Your task to perform on an android device: add a label to a message in the gmail app Image 0: 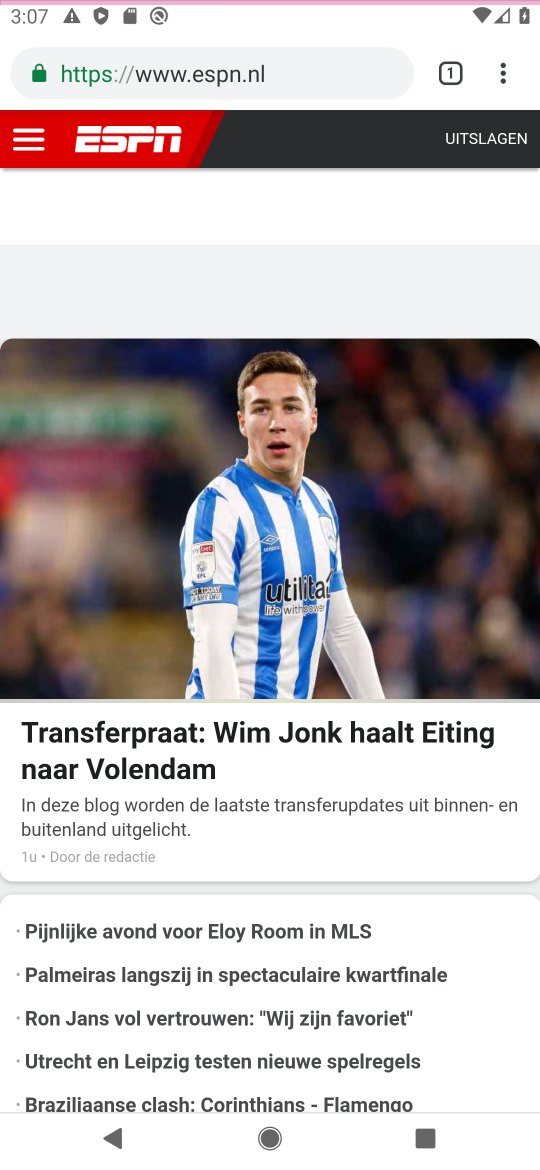
Step 0: press home button
Your task to perform on an android device: add a label to a message in the gmail app Image 1: 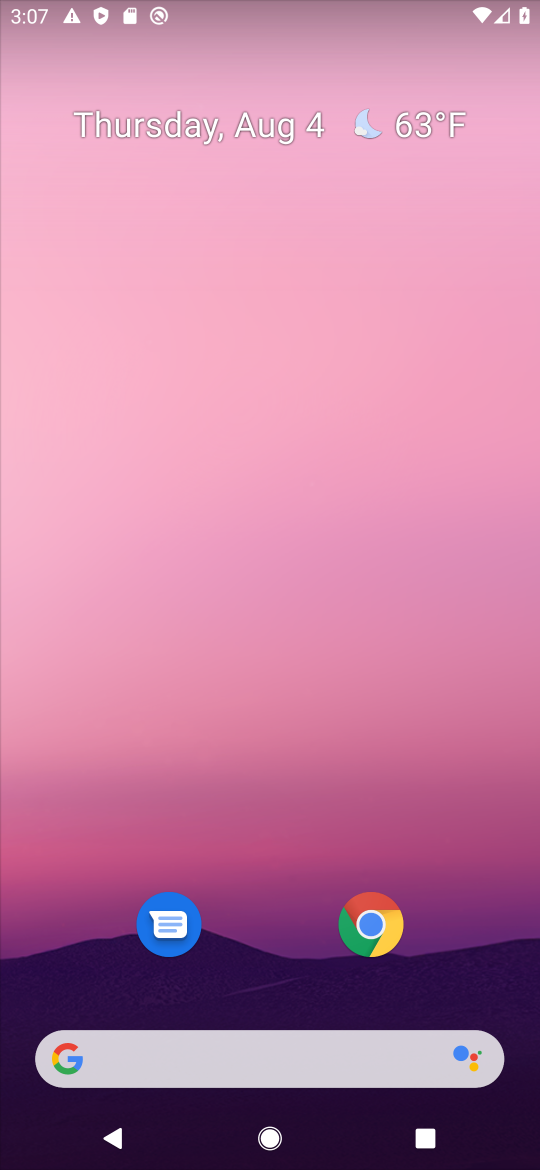
Step 1: drag from (247, 950) to (120, 289)
Your task to perform on an android device: add a label to a message in the gmail app Image 2: 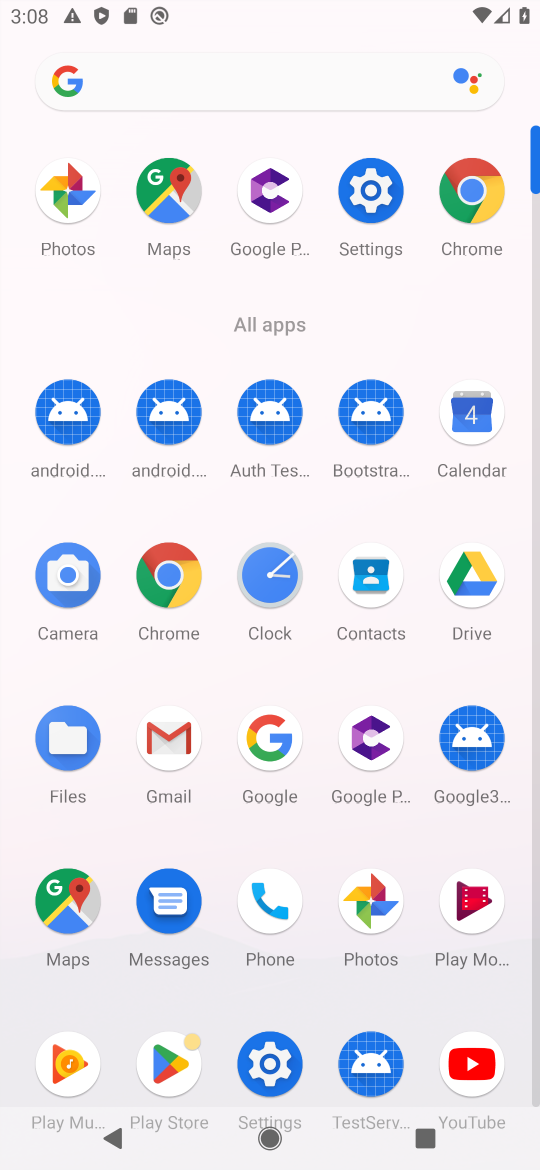
Step 2: click (153, 756)
Your task to perform on an android device: add a label to a message in the gmail app Image 3: 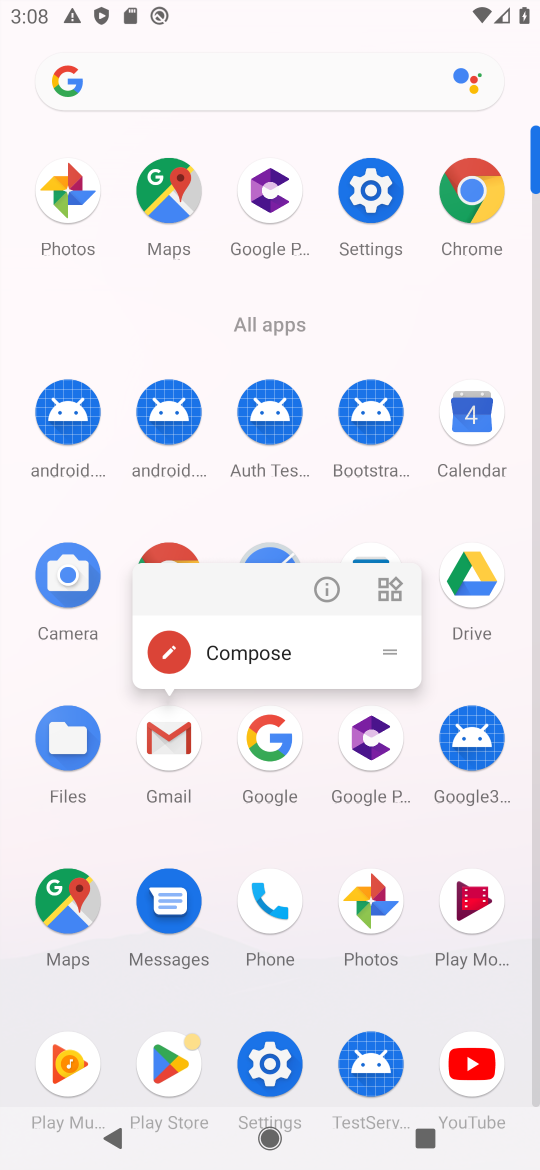
Step 3: click (166, 736)
Your task to perform on an android device: add a label to a message in the gmail app Image 4: 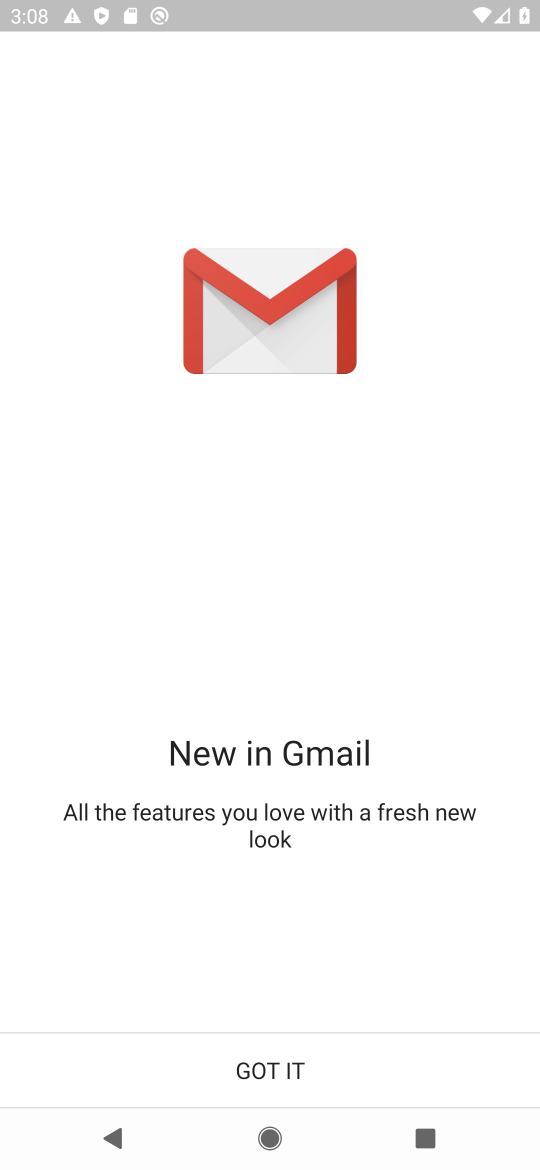
Step 4: click (270, 1063)
Your task to perform on an android device: add a label to a message in the gmail app Image 5: 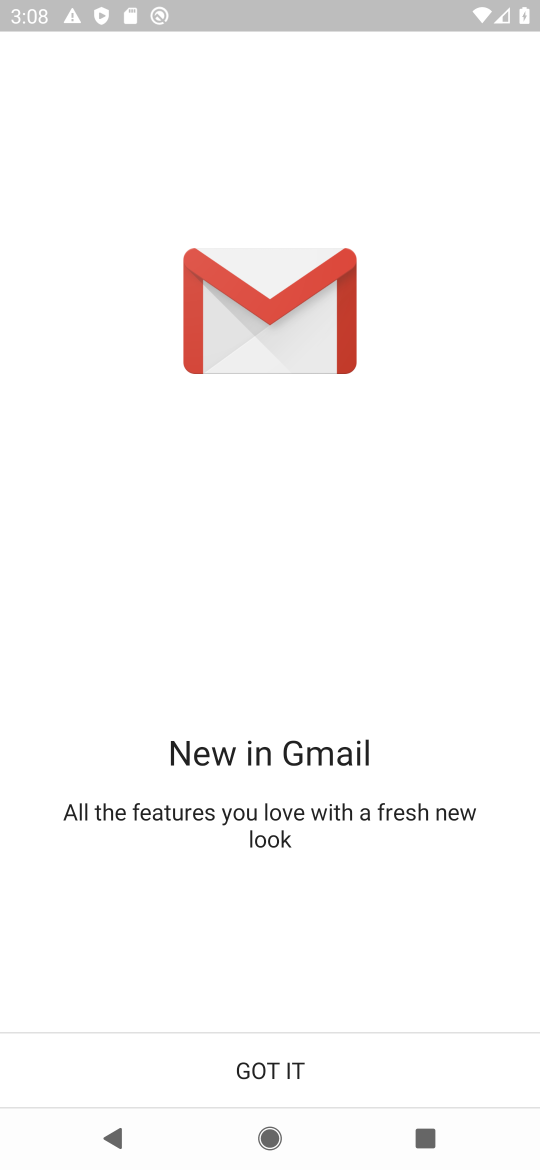
Step 5: click (270, 1063)
Your task to perform on an android device: add a label to a message in the gmail app Image 6: 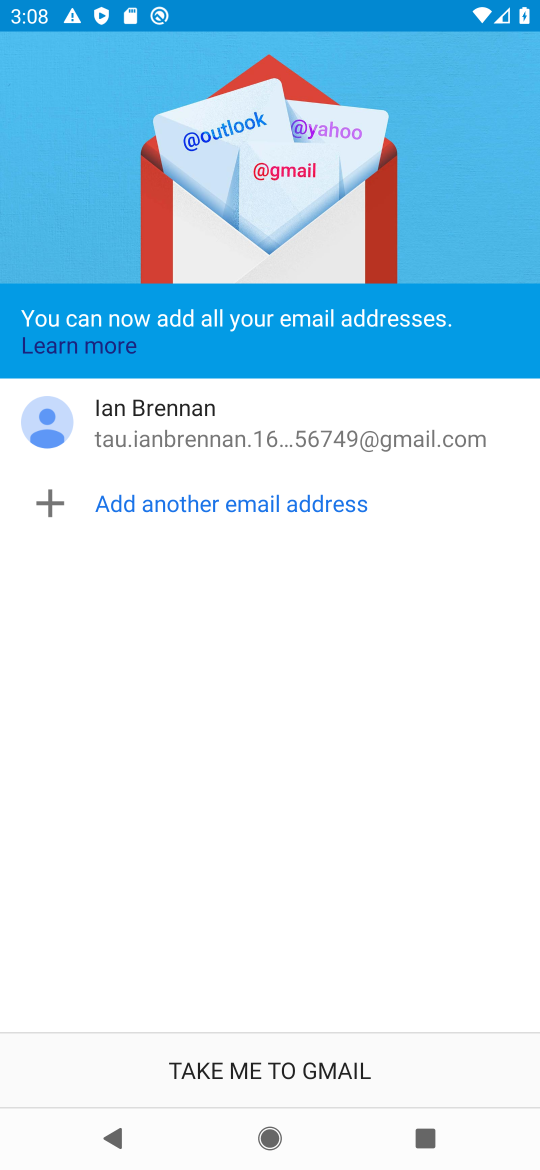
Step 6: click (270, 1063)
Your task to perform on an android device: add a label to a message in the gmail app Image 7: 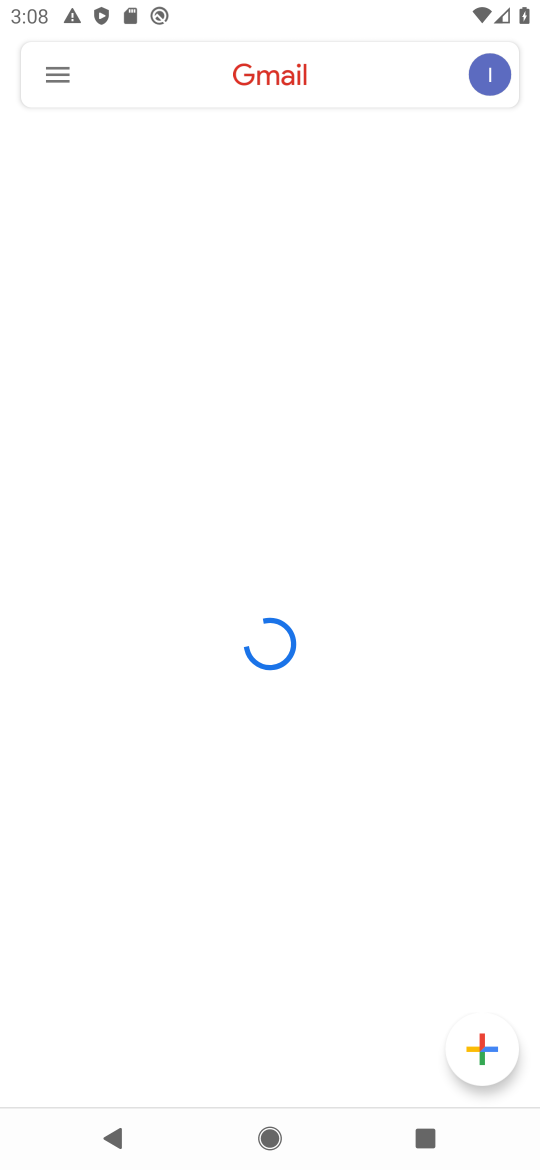
Step 7: click (59, 56)
Your task to perform on an android device: add a label to a message in the gmail app Image 8: 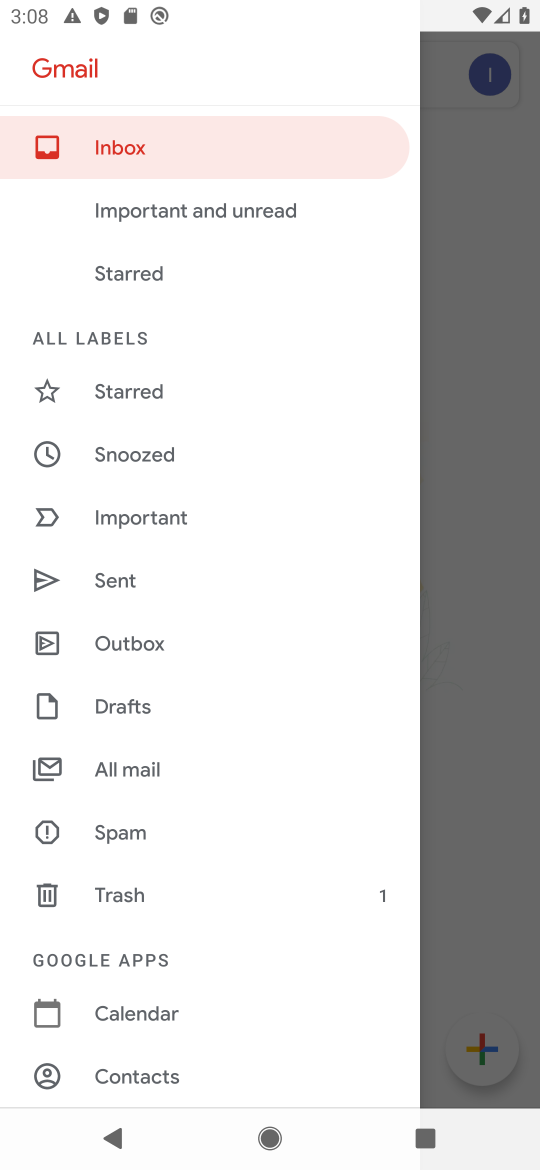
Step 8: click (105, 755)
Your task to perform on an android device: add a label to a message in the gmail app Image 9: 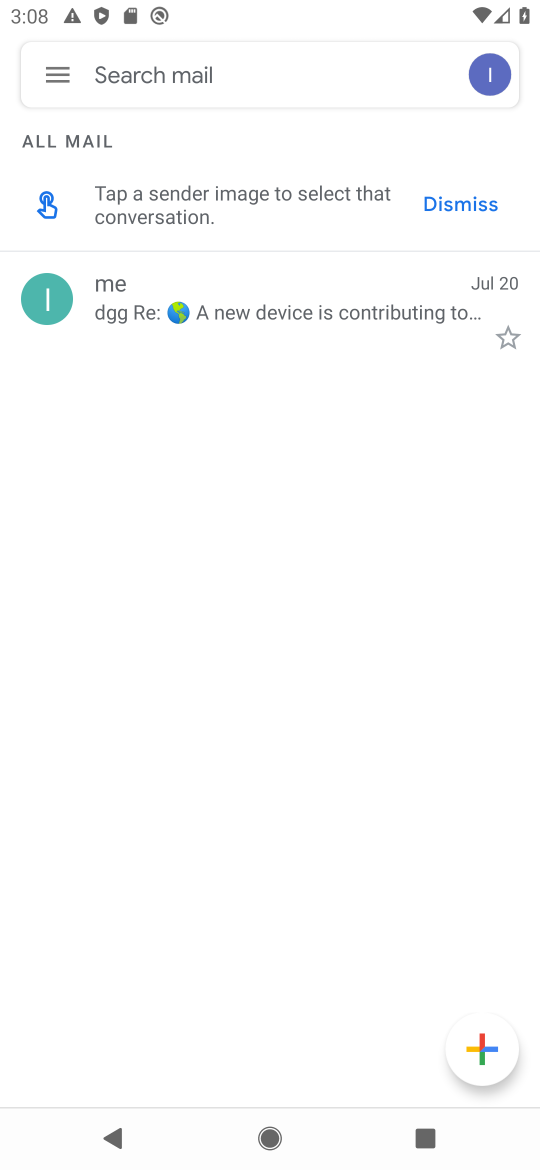
Step 9: click (296, 298)
Your task to perform on an android device: add a label to a message in the gmail app Image 10: 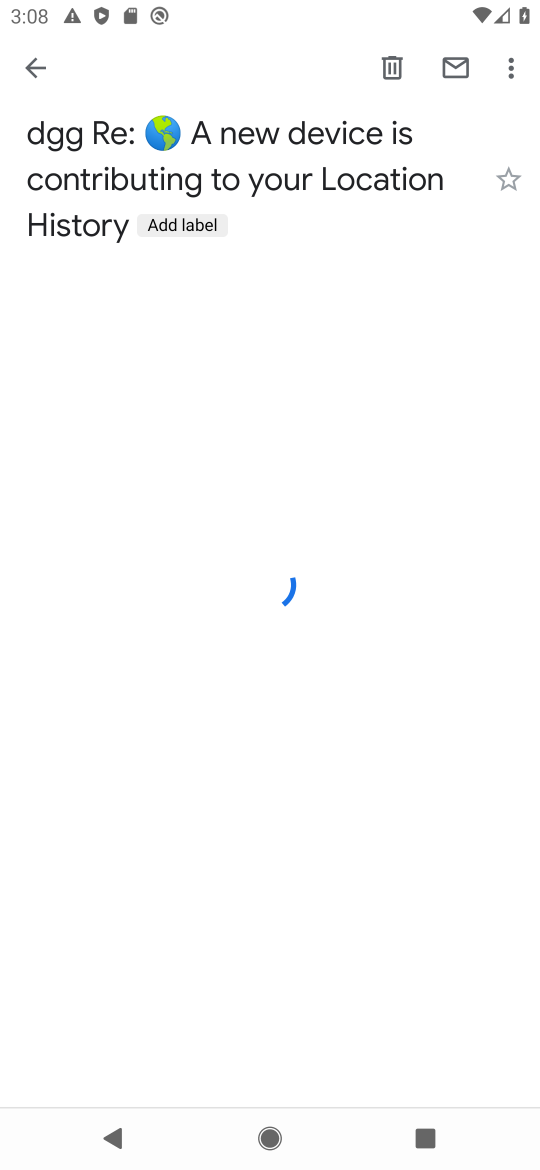
Step 10: click (511, 62)
Your task to perform on an android device: add a label to a message in the gmail app Image 11: 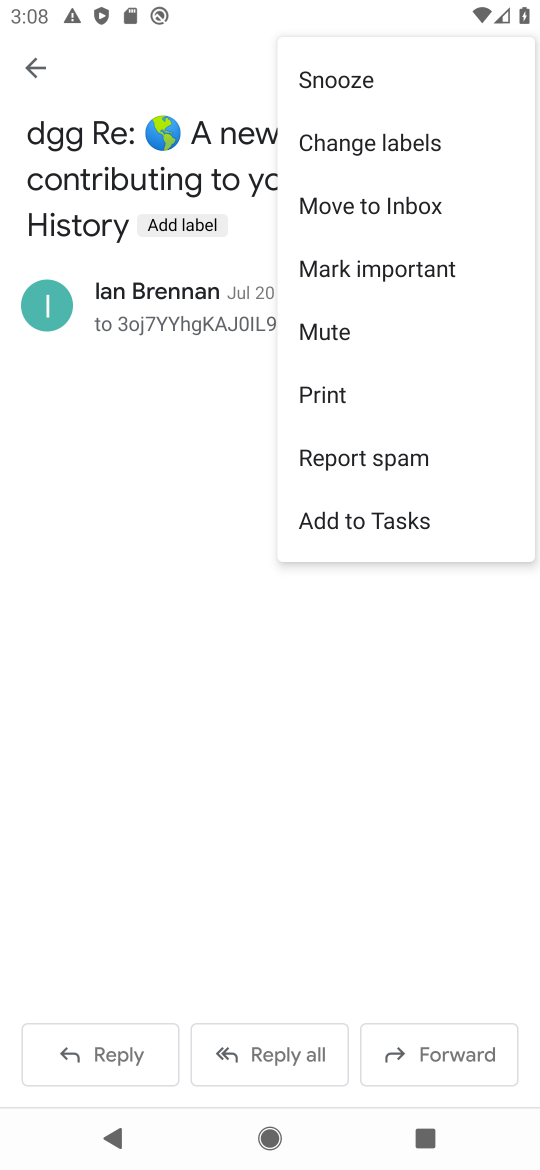
Step 11: click (347, 146)
Your task to perform on an android device: add a label to a message in the gmail app Image 12: 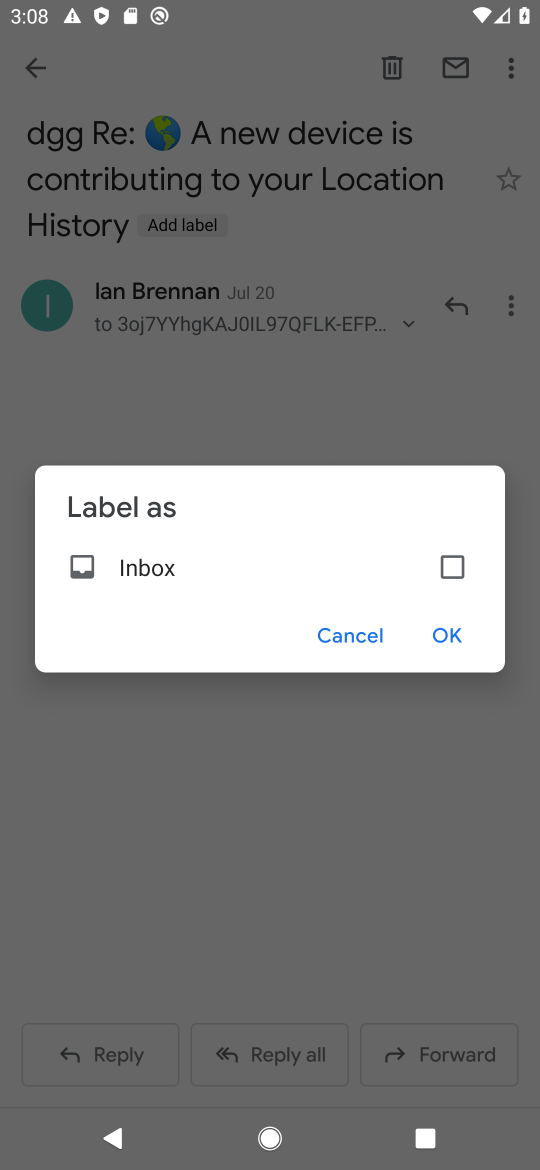
Step 12: click (439, 564)
Your task to perform on an android device: add a label to a message in the gmail app Image 13: 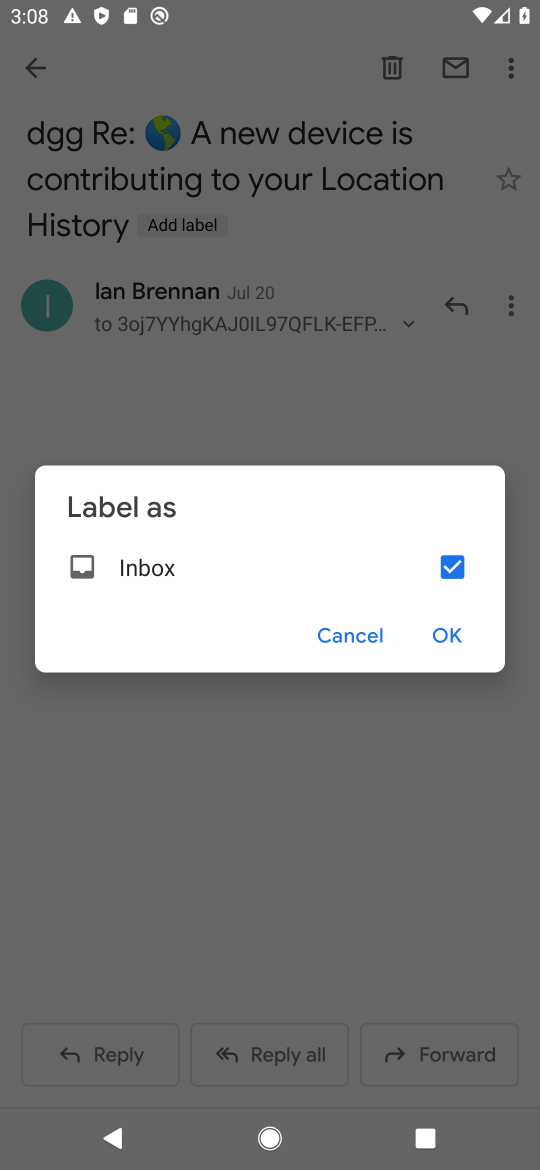
Step 13: click (449, 627)
Your task to perform on an android device: add a label to a message in the gmail app Image 14: 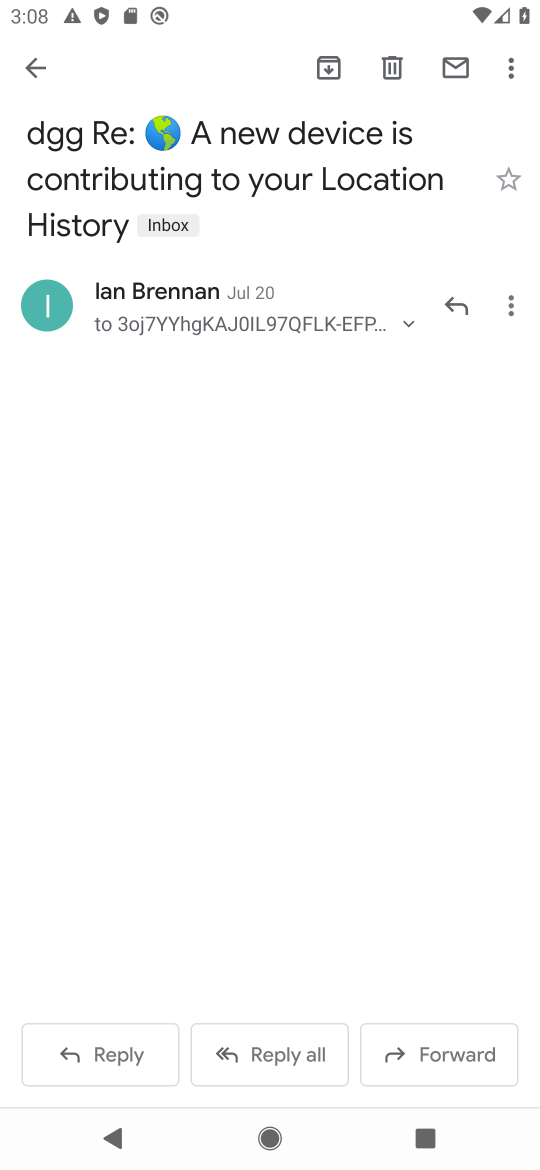
Step 14: task complete